Your task to perform on an android device: Go to notification settings Image 0: 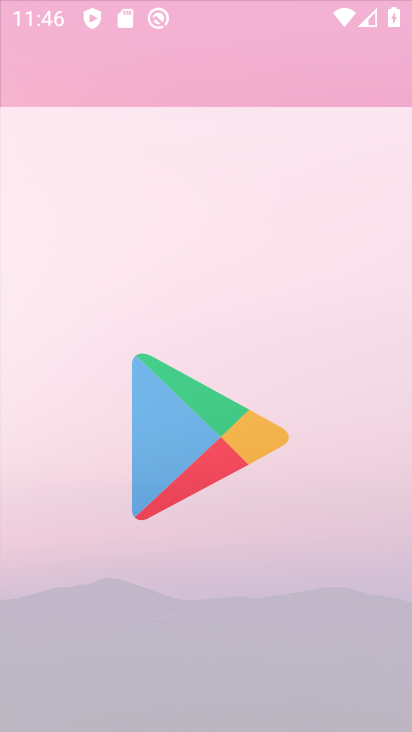
Step 0: press home button
Your task to perform on an android device: Go to notification settings Image 1: 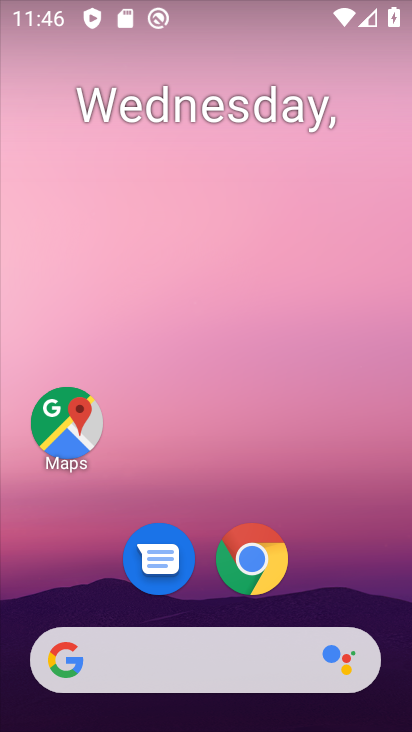
Step 1: drag from (88, 620) to (210, 144)
Your task to perform on an android device: Go to notification settings Image 2: 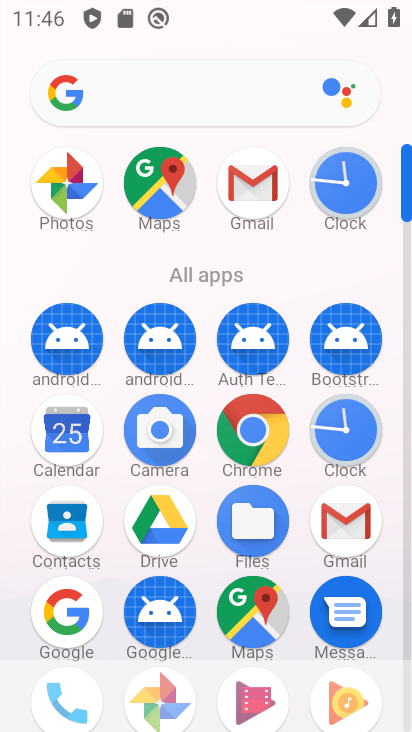
Step 2: drag from (197, 685) to (260, 398)
Your task to perform on an android device: Go to notification settings Image 3: 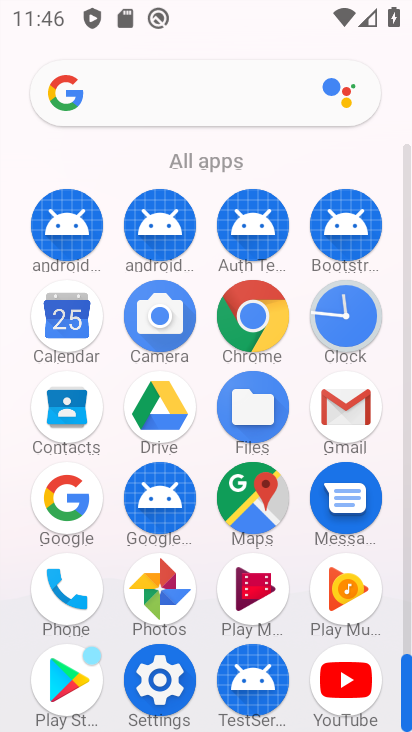
Step 3: click (156, 674)
Your task to perform on an android device: Go to notification settings Image 4: 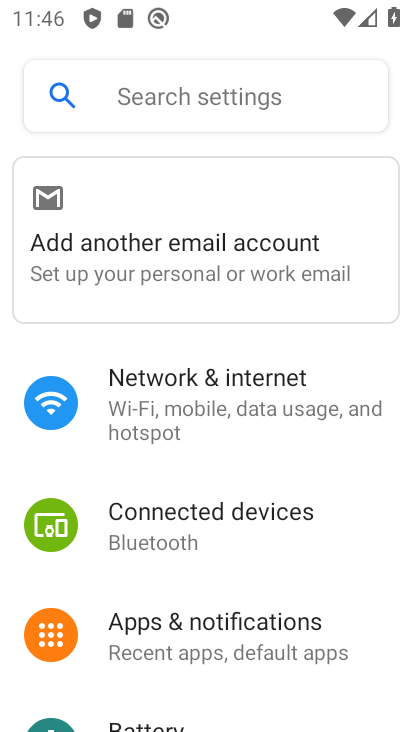
Step 4: drag from (228, 632) to (329, 281)
Your task to perform on an android device: Go to notification settings Image 5: 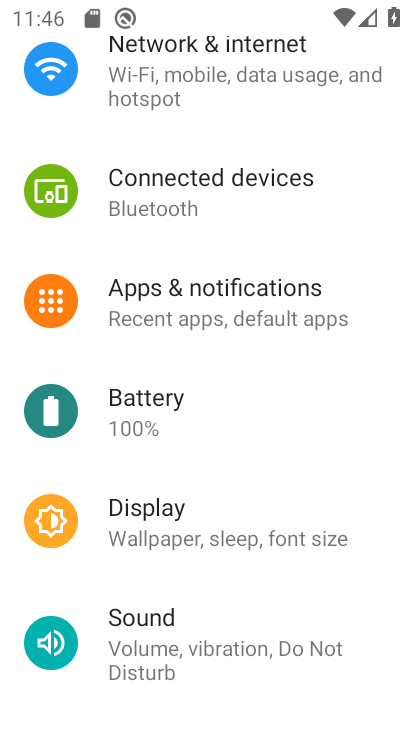
Step 5: click (288, 308)
Your task to perform on an android device: Go to notification settings Image 6: 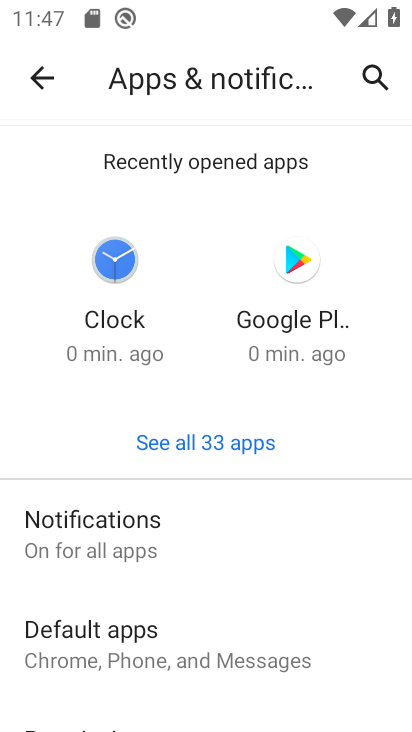
Step 6: click (234, 558)
Your task to perform on an android device: Go to notification settings Image 7: 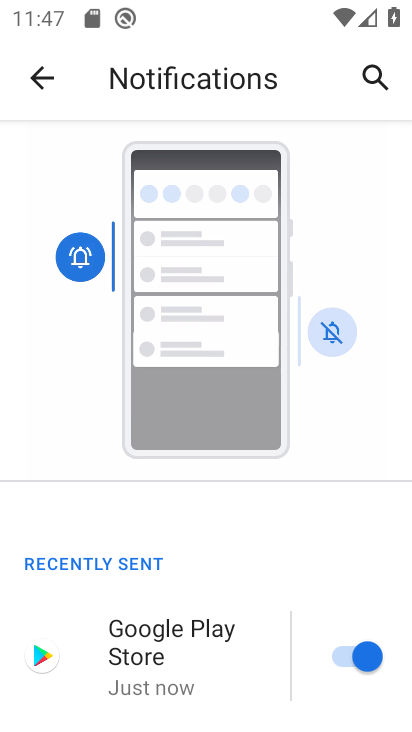
Step 7: task complete